Your task to perform on an android device: turn vacation reply on in the gmail app Image 0: 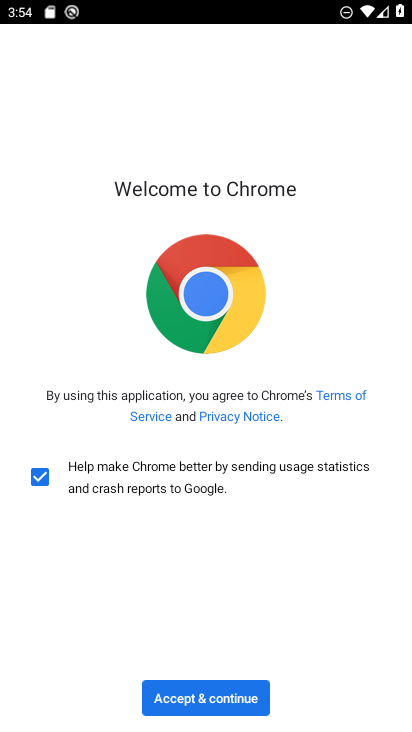
Step 0: press home button
Your task to perform on an android device: turn vacation reply on in the gmail app Image 1: 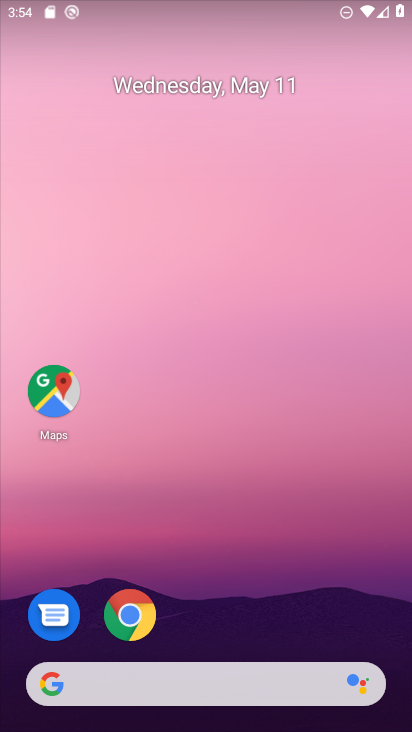
Step 1: drag from (229, 646) to (286, 124)
Your task to perform on an android device: turn vacation reply on in the gmail app Image 2: 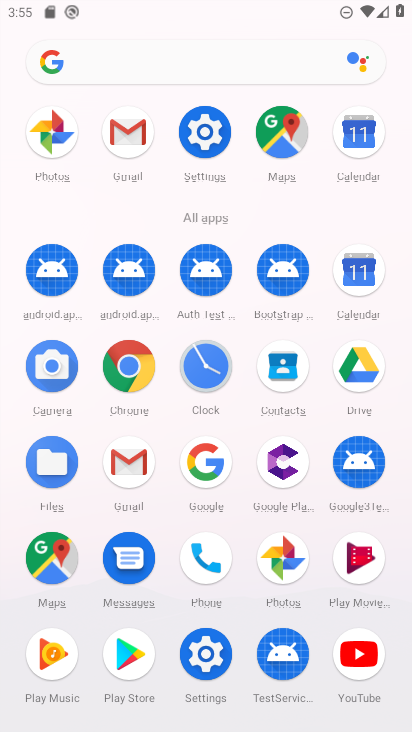
Step 2: click (123, 464)
Your task to perform on an android device: turn vacation reply on in the gmail app Image 3: 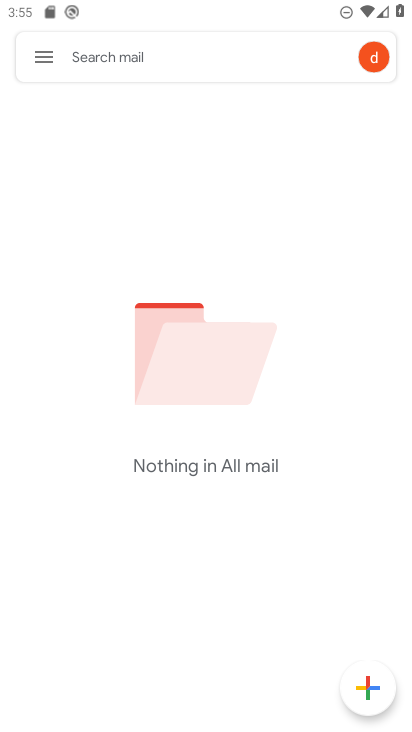
Step 3: click (54, 48)
Your task to perform on an android device: turn vacation reply on in the gmail app Image 4: 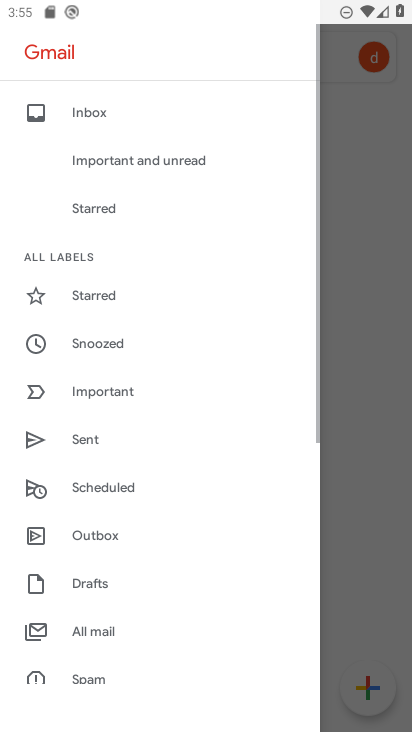
Step 4: drag from (167, 668) to (208, 252)
Your task to perform on an android device: turn vacation reply on in the gmail app Image 5: 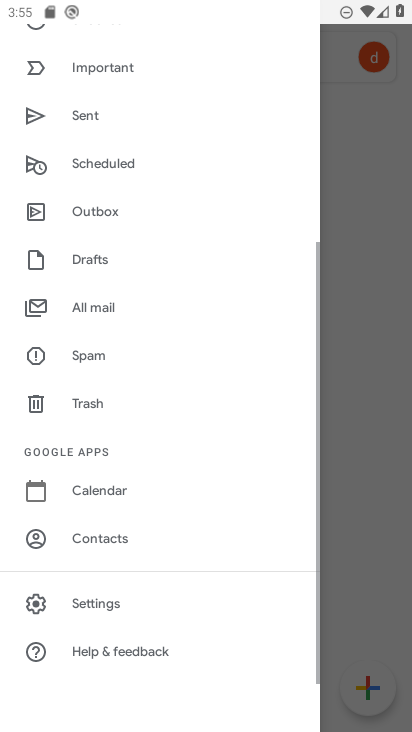
Step 5: click (142, 598)
Your task to perform on an android device: turn vacation reply on in the gmail app Image 6: 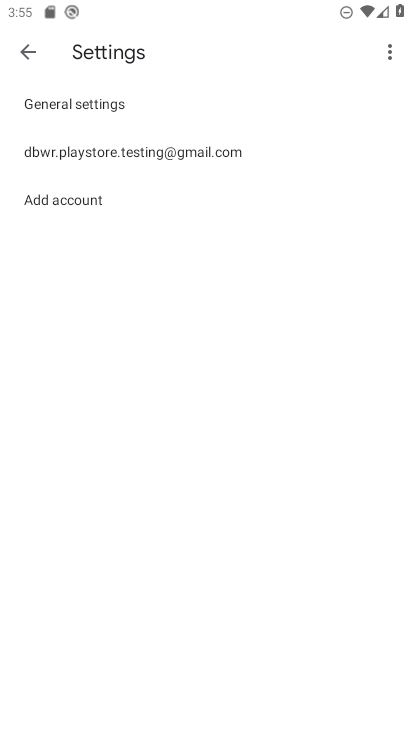
Step 6: click (256, 138)
Your task to perform on an android device: turn vacation reply on in the gmail app Image 7: 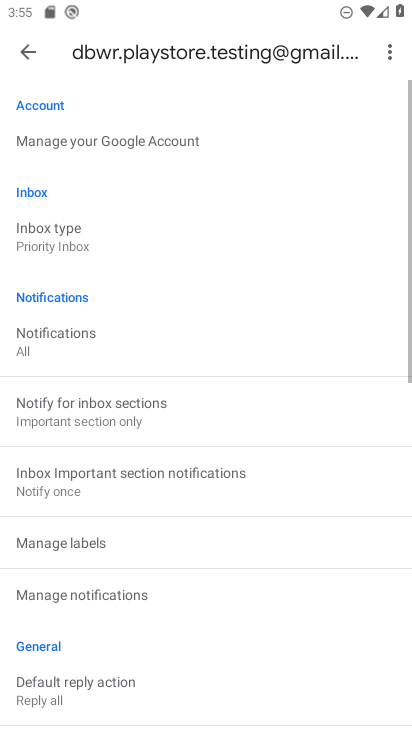
Step 7: drag from (211, 523) to (238, 113)
Your task to perform on an android device: turn vacation reply on in the gmail app Image 8: 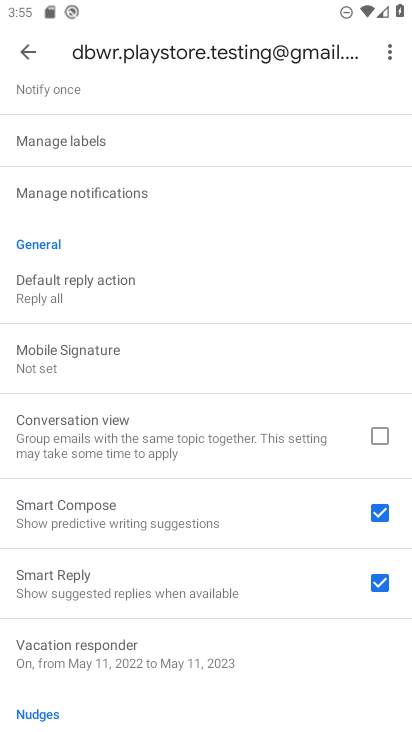
Step 8: drag from (229, 606) to (265, 196)
Your task to perform on an android device: turn vacation reply on in the gmail app Image 9: 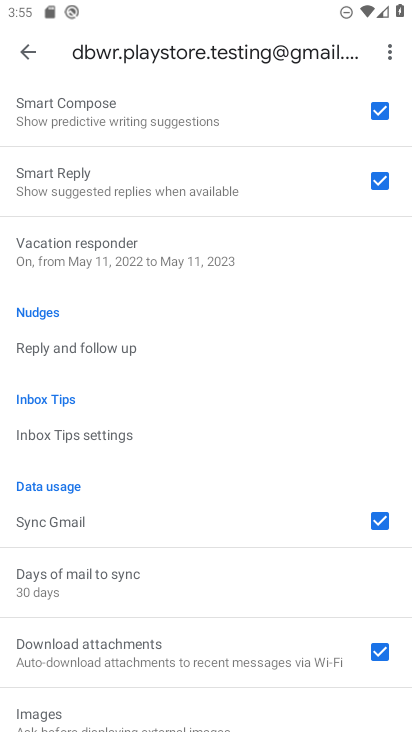
Step 9: click (224, 253)
Your task to perform on an android device: turn vacation reply on in the gmail app Image 10: 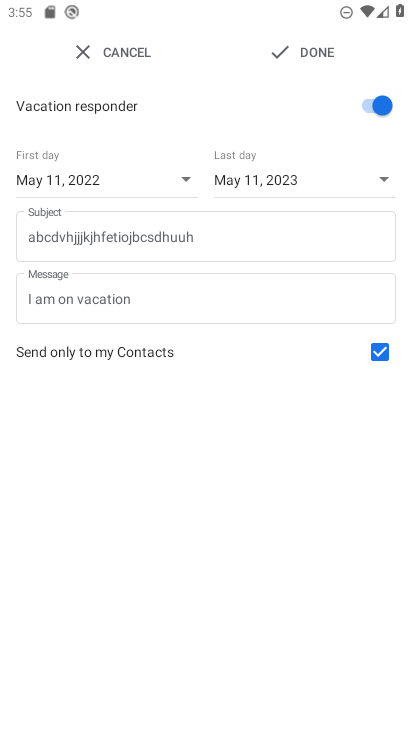
Step 10: click (317, 48)
Your task to perform on an android device: turn vacation reply on in the gmail app Image 11: 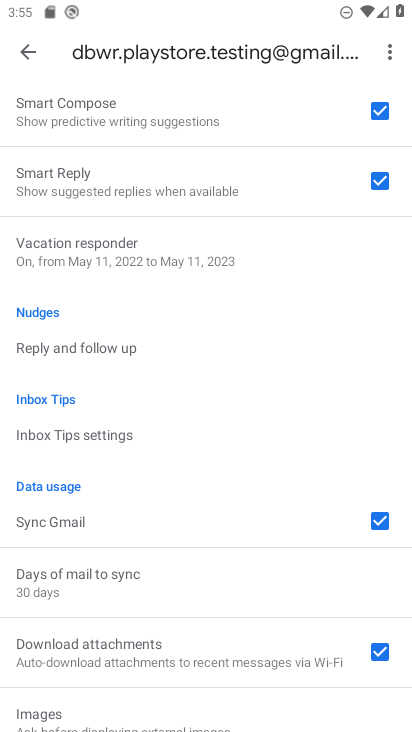
Step 11: task complete